Your task to perform on an android device: Show me recent news Image 0: 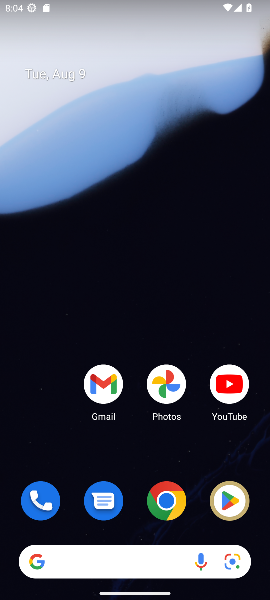
Step 0: drag from (118, 449) to (195, 3)
Your task to perform on an android device: Show me recent news Image 1: 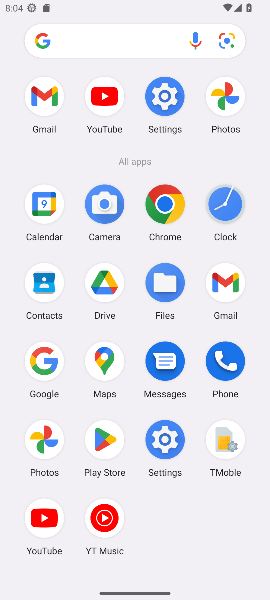
Step 1: click (36, 369)
Your task to perform on an android device: Show me recent news Image 2: 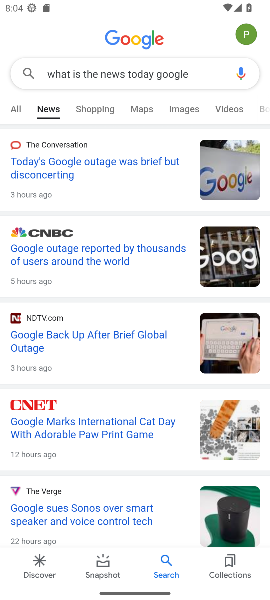
Step 2: click (171, 71)
Your task to perform on an android device: Show me recent news Image 3: 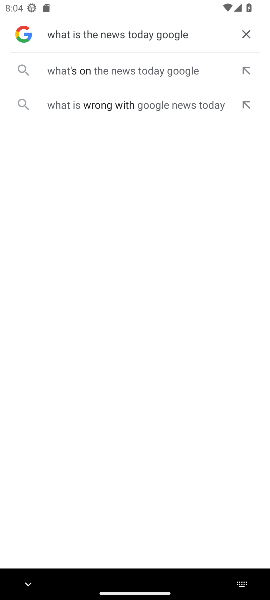
Step 3: click (252, 32)
Your task to perform on an android device: Show me recent news Image 4: 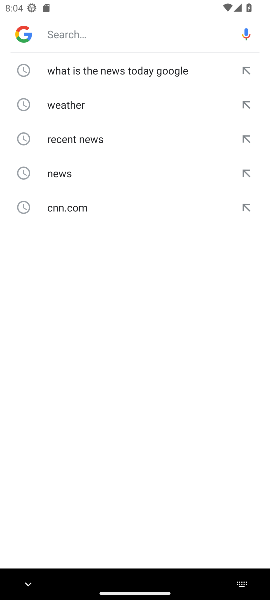
Step 4: type "recent news"
Your task to perform on an android device: Show me recent news Image 5: 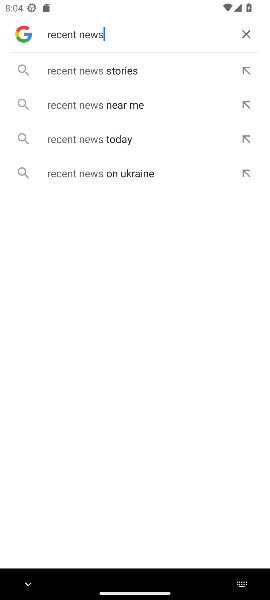
Step 5: click (87, 146)
Your task to perform on an android device: Show me recent news Image 6: 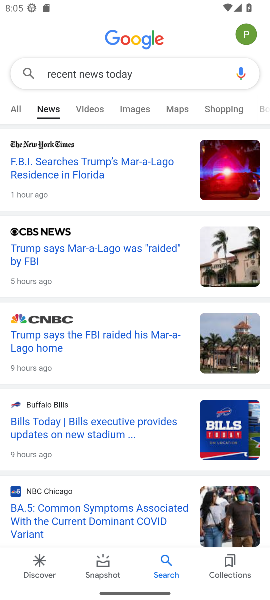
Step 6: task complete